Your task to perform on an android device: Open maps Image 0: 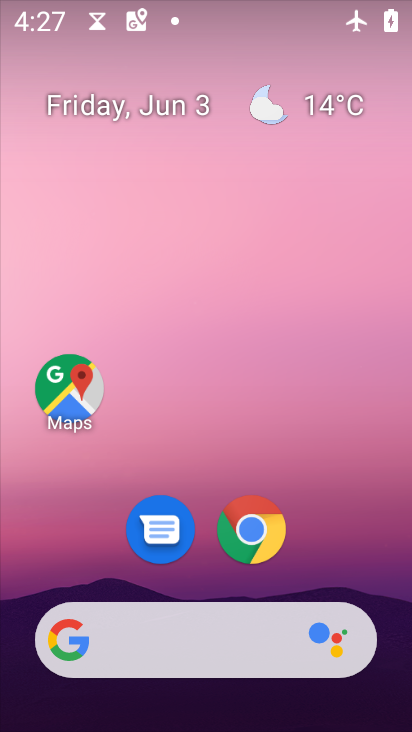
Step 0: drag from (352, 544) to (316, 24)
Your task to perform on an android device: Open maps Image 1: 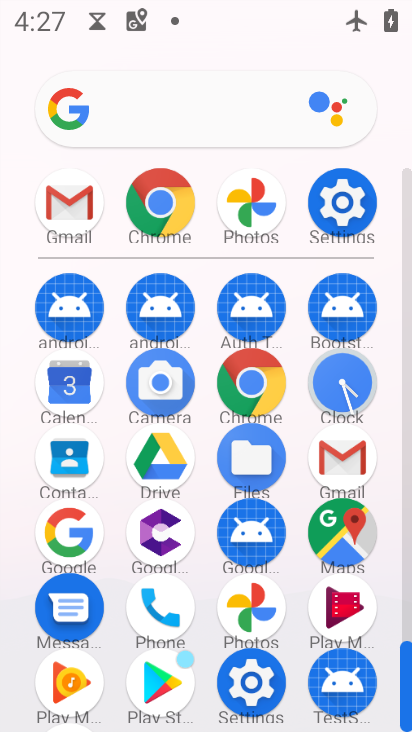
Step 1: click (328, 549)
Your task to perform on an android device: Open maps Image 2: 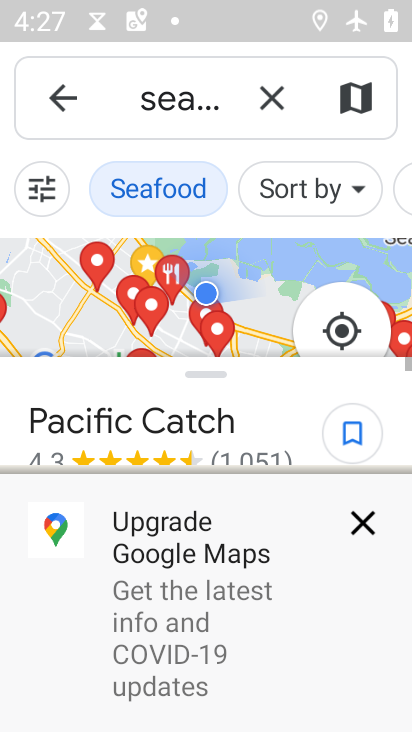
Step 2: task complete